Your task to perform on an android device: Open the web browser Image 0: 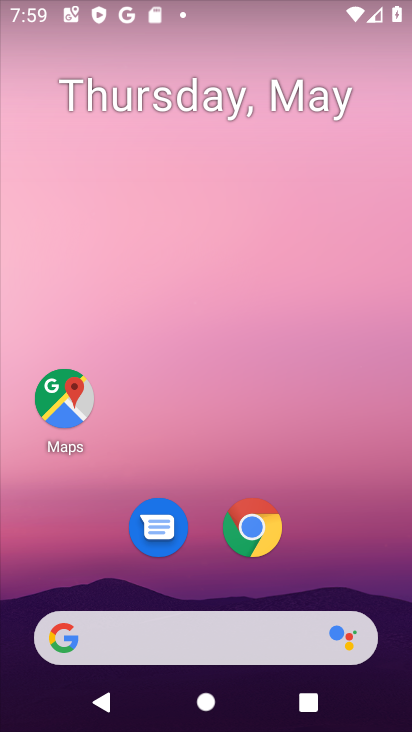
Step 0: drag from (5, 669) to (304, 163)
Your task to perform on an android device: Open the web browser Image 1: 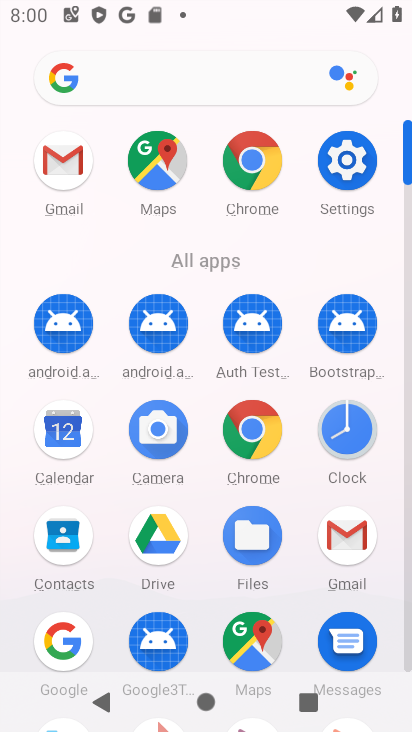
Step 1: task complete